Your task to perform on an android device: clear all cookies in the chrome app Image 0: 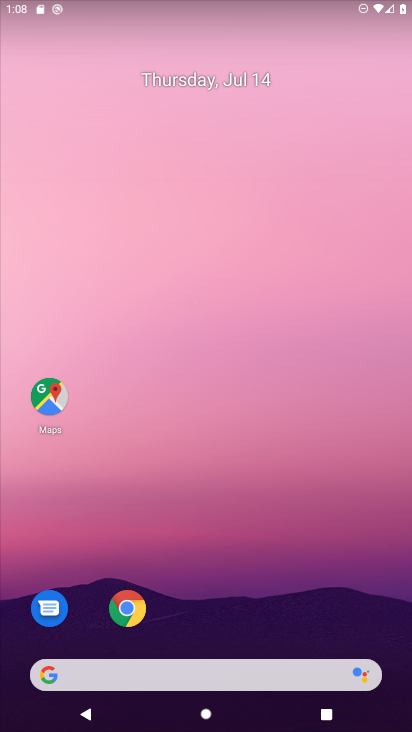
Step 0: drag from (238, 725) to (248, 51)
Your task to perform on an android device: clear all cookies in the chrome app Image 1: 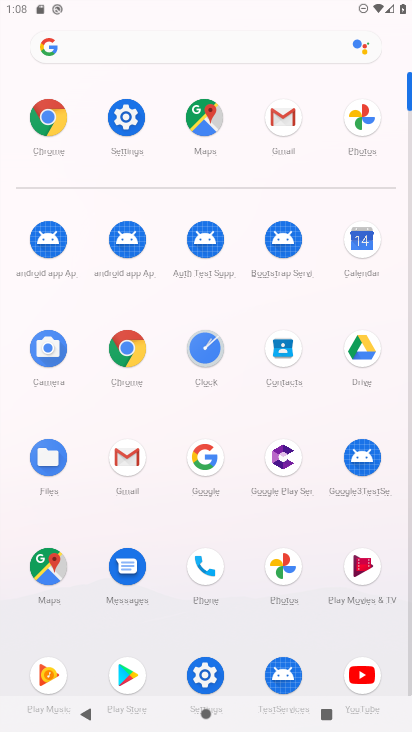
Step 1: click (126, 349)
Your task to perform on an android device: clear all cookies in the chrome app Image 2: 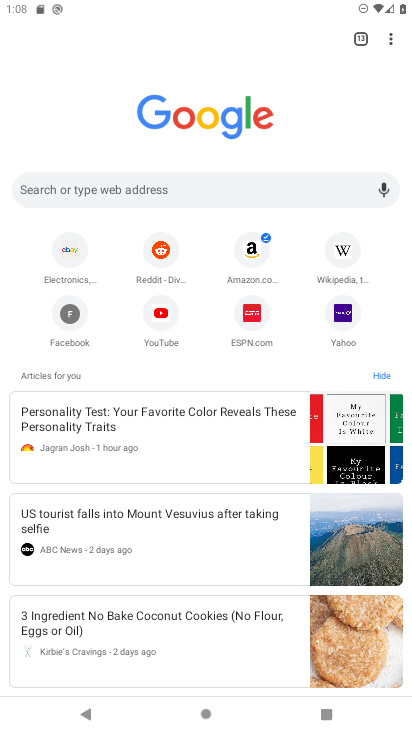
Step 2: click (391, 39)
Your task to perform on an android device: clear all cookies in the chrome app Image 3: 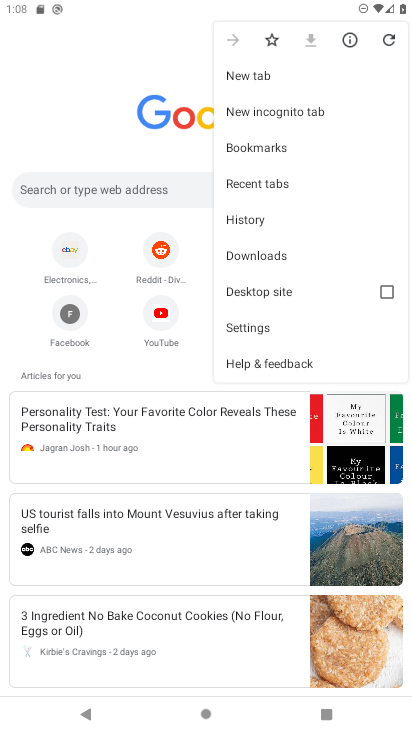
Step 3: click (244, 218)
Your task to perform on an android device: clear all cookies in the chrome app Image 4: 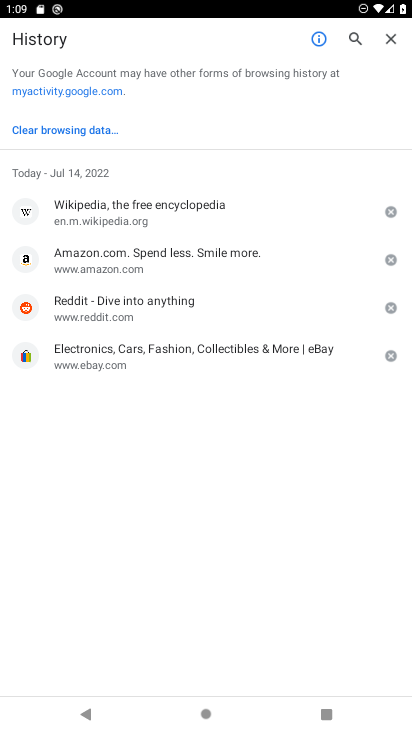
Step 4: click (85, 129)
Your task to perform on an android device: clear all cookies in the chrome app Image 5: 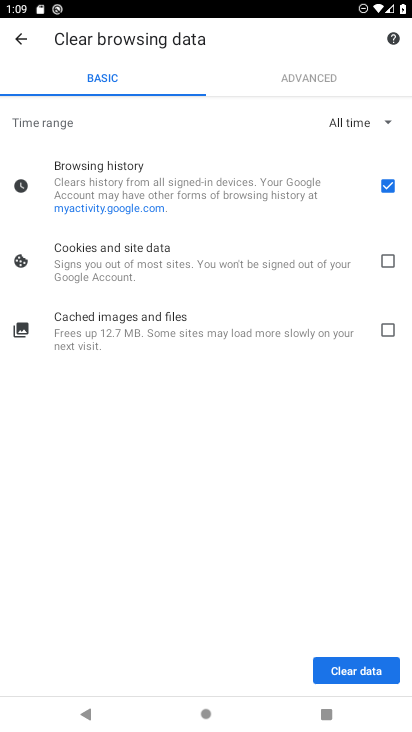
Step 5: click (388, 189)
Your task to perform on an android device: clear all cookies in the chrome app Image 6: 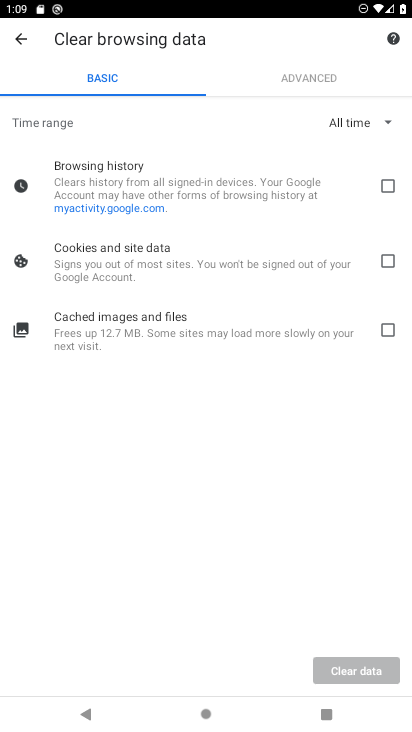
Step 6: click (386, 257)
Your task to perform on an android device: clear all cookies in the chrome app Image 7: 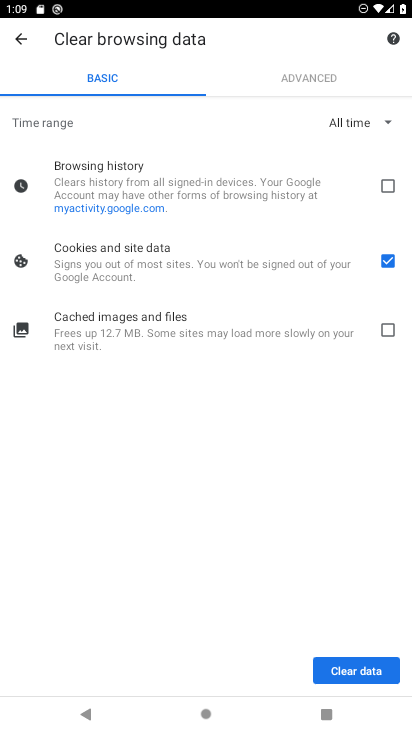
Step 7: click (355, 662)
Your task to perform on an android device: clear all cookies in the chrome app Image 8: 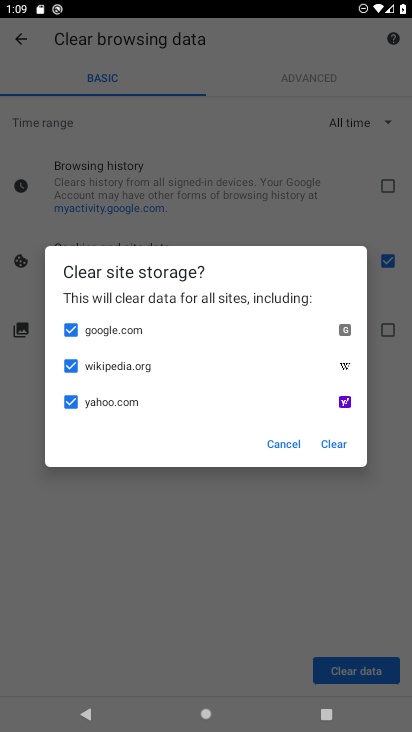
Step 8: click (336, 442)
Your task to perform on an android device: clear all cookies in the chrome app Image 9: 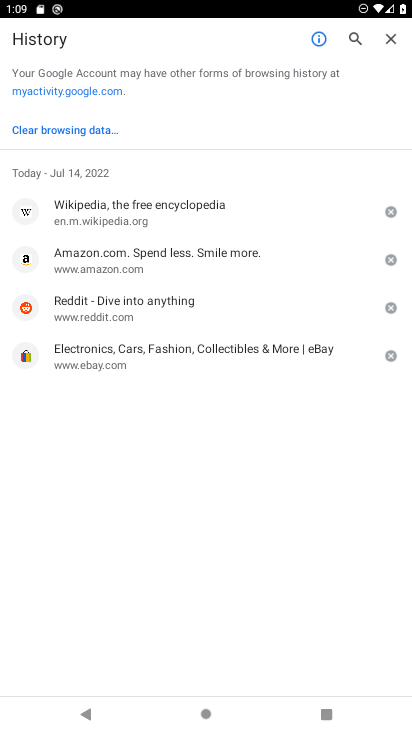
Step 9: task complete